Your task to perform on an android device: delete the emails in spam in the gmail app Image 0: 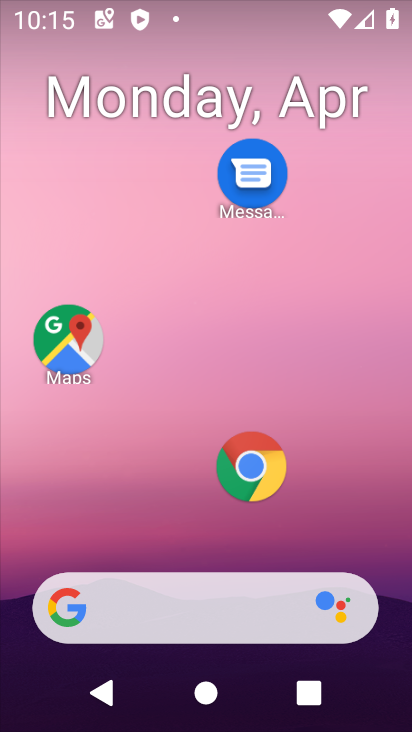
Step 0: drag from (167, 383) to (214, 11)
Your task to perform on an android device: delete the emails in spam in the gmail app Image 1: 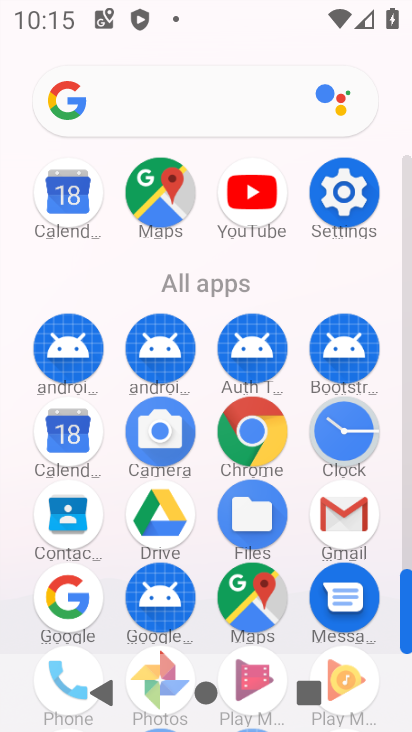
Step 1: click (341, 505)
Your task to perform on an android device: delete the emails in spam in the gmail app Image 2: 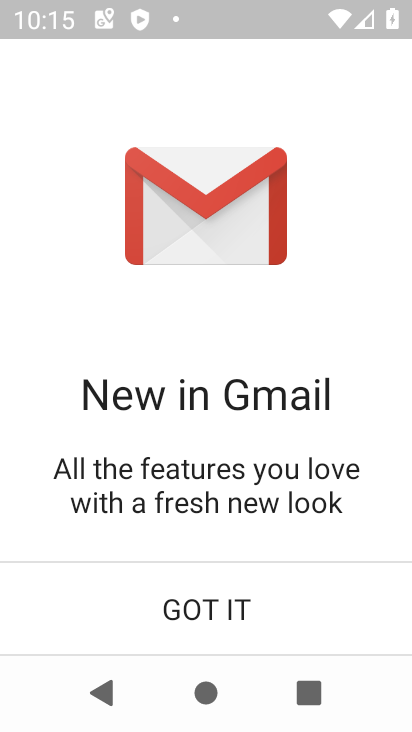
Step 2: click (215, 592)
Your task to perform on an android device: delete the emails in spam in the gmail app Image 3: 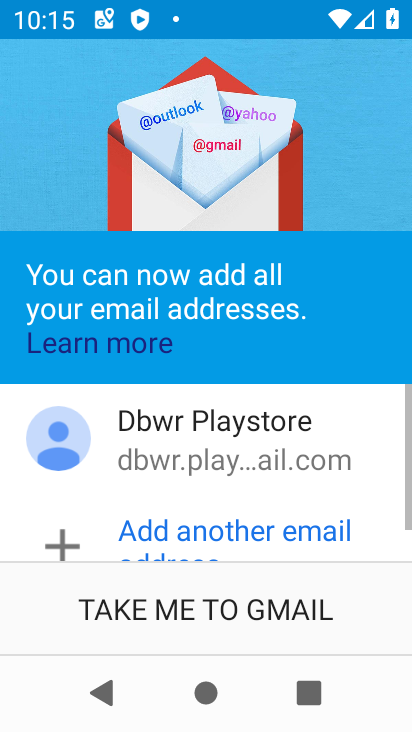
Step 3: click (215, 592)
Your task to perform on an android device: delete the emails in spam in the gmail app Image 4: 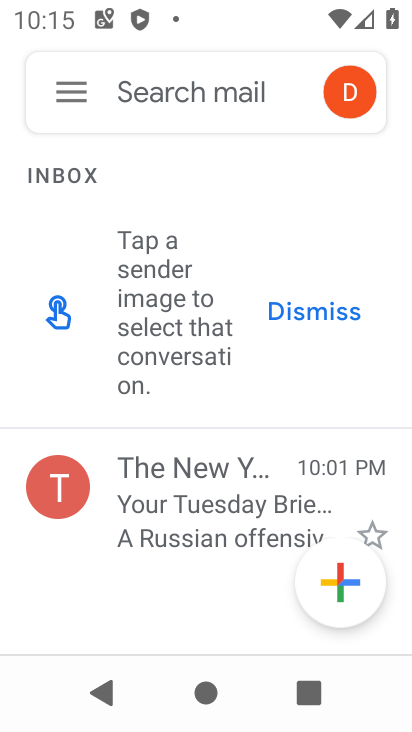
Step 4: click (72, 98)
Your task to perform on an android device: delete the emails in spam in the gmail app Image 5: 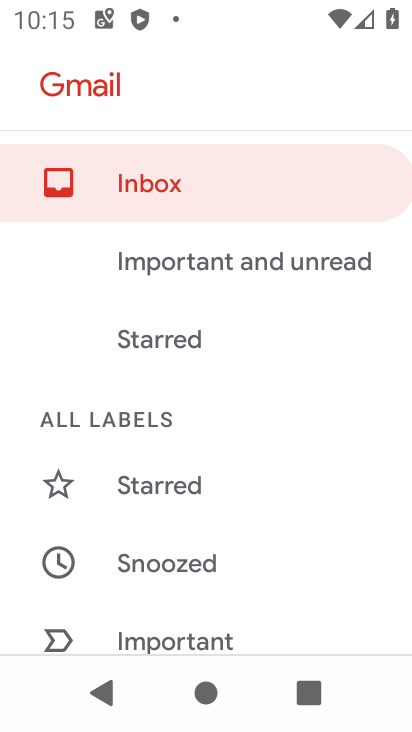
Step 5: drag from (191, 595) to (277, 252)
Your task to perform on an android device: delete the emails in spam in the gmail app Image 6: 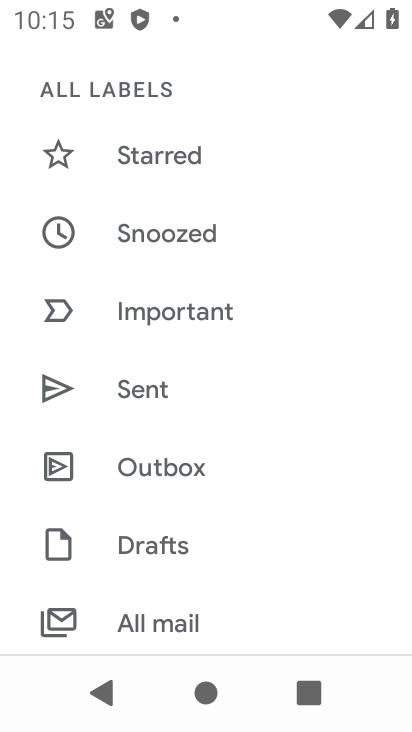
Step 6: drag from (186, 420) to (229, 177)
Your task to perform on an android device: delete the emails in spam in the gmail app Image 7: 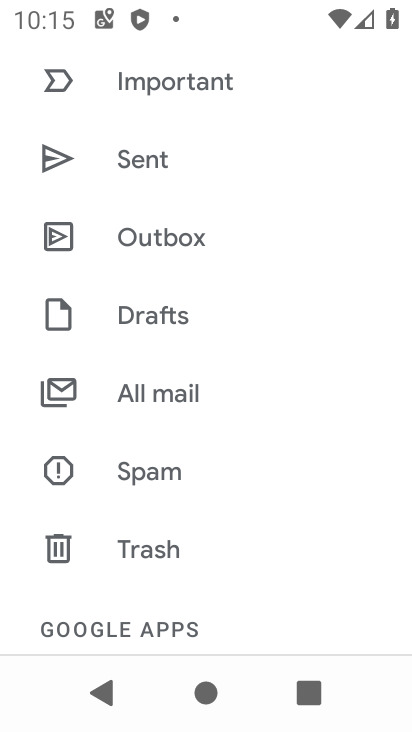
Step 7: click (167, 468)
Your task to perform on an android device: delete the emails in spam in the gmail app Image 8: 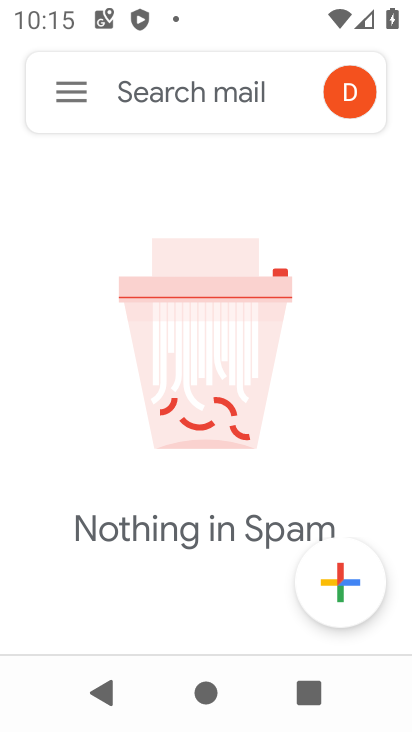
Step 8: task complete